Your task to perform on an android device: Open Android settings Image 0: 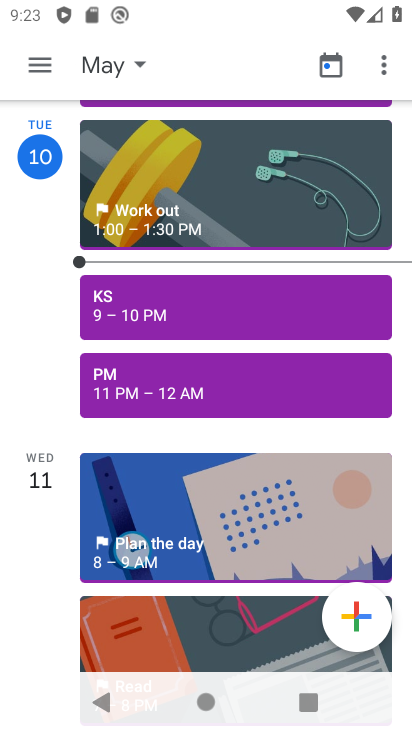
Step 0: press home button
Your task to perform on an android device: Open Android settings Image 1: 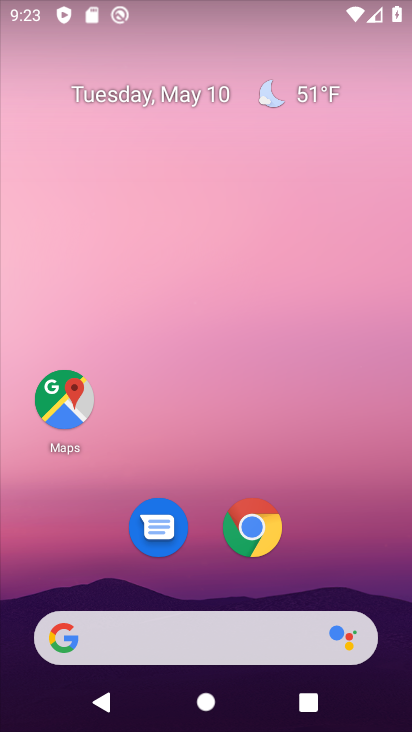
Step 1: drag from (221, 728) to (219, 98)
Your task to perform on an android device: Open Android settings Image 2: 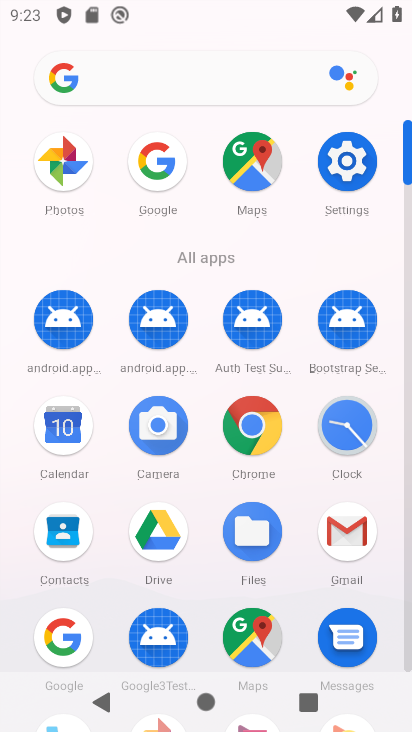
Step 2: click (350, 159)
Your task to perform on an android device: Open Android settings Image 3: 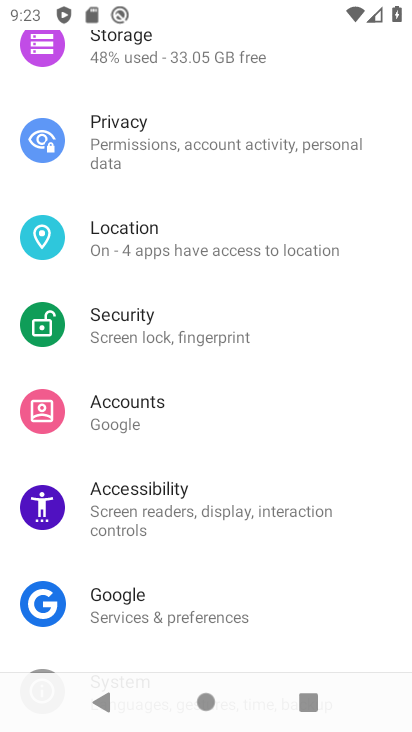
Step 3: task complete